Your task to perform on an android device: Go to notification settings Image 0: 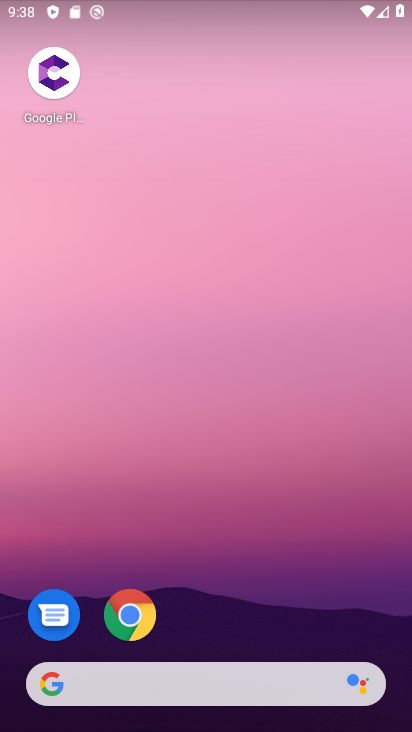
Step 0: drag from (217, 656) to (261, 169)
Your task to perform on an android device: Go to notification settings Image 1: 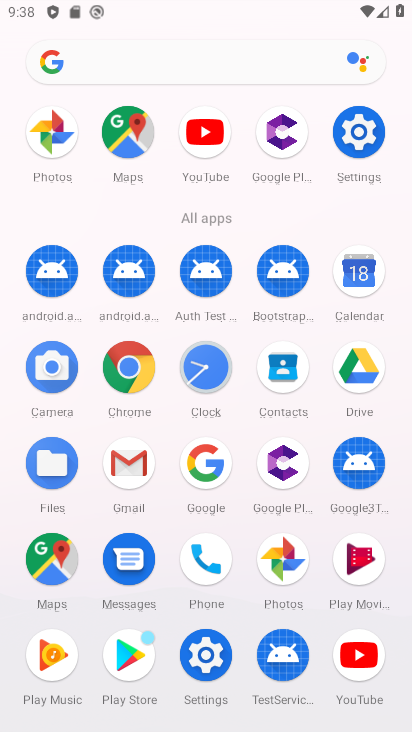
Step 1: click (366, 132)
Your task to perform on an android device: Go to notification settings Image 2: 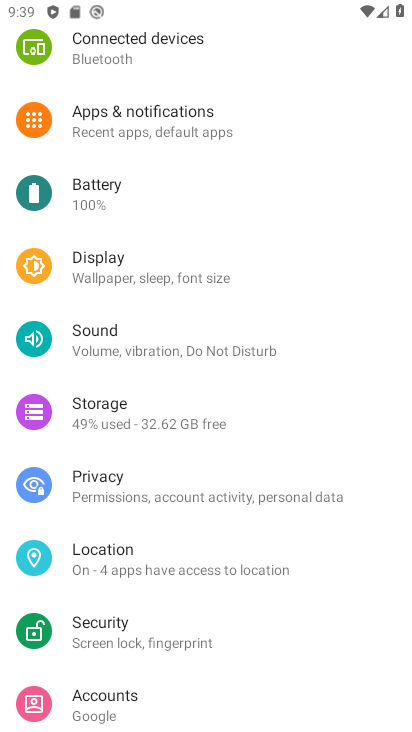
Step 2: click (138, 91)
Your task to perform on an android device: Go to notification settings Image 3: 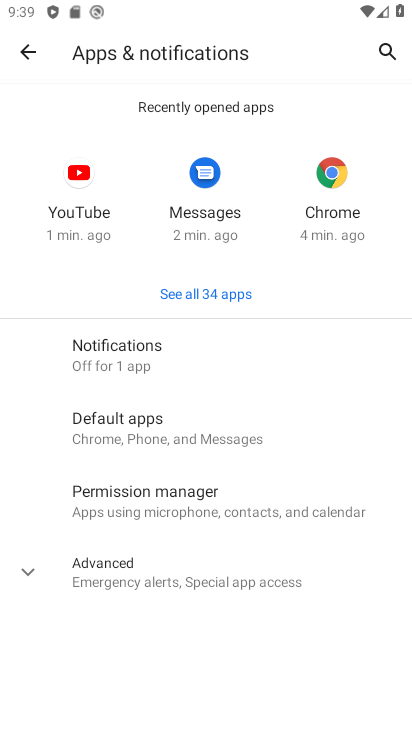
Step 3: drag from (212, 581) to (193, 222)
Your task to perform on an android device: Go to notification settings Image 4: 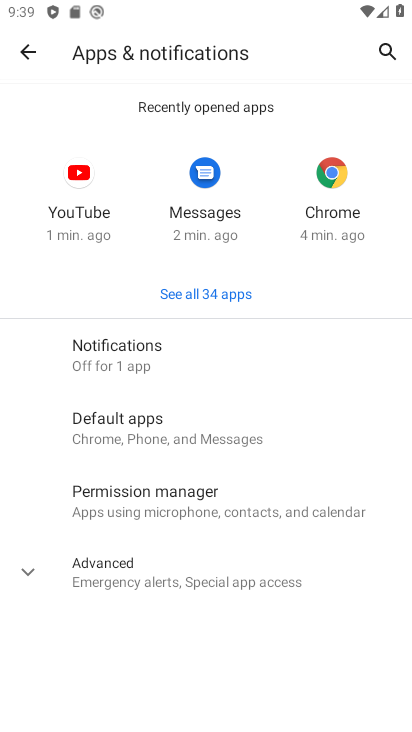
Step 4: click (200, 564)
Your task to perform on an android device: Go to notification settings Image 5: 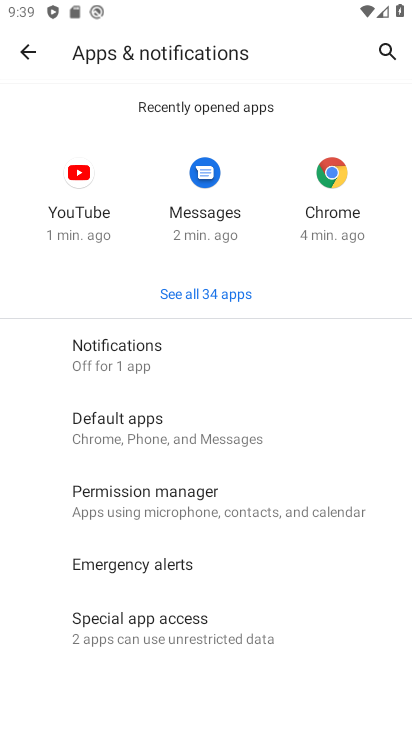
Step 5: task complete